Your task to perform on an android device: Check the news Image 0: 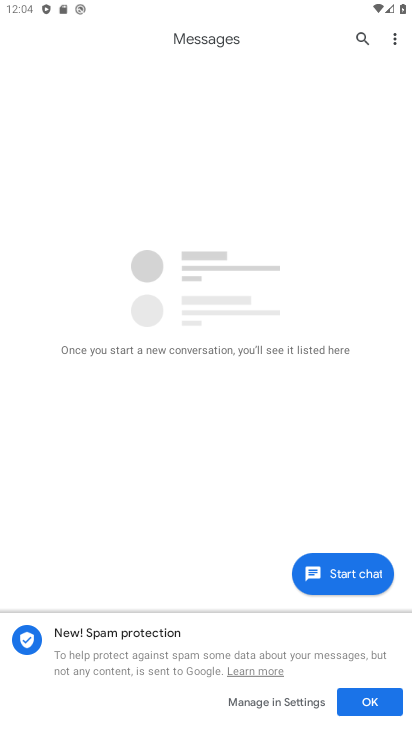
Step 0: press home button
Your task to perform on an android device: Check the news Image 1: 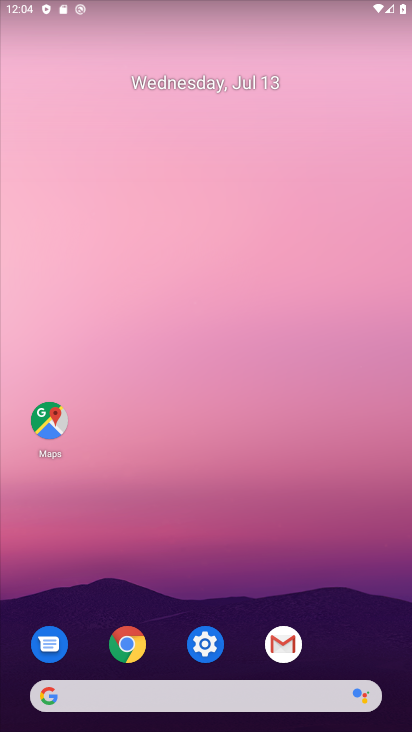
Step 1: click (153, 701)
Your task to perform on an android device: Check the news Image 2: 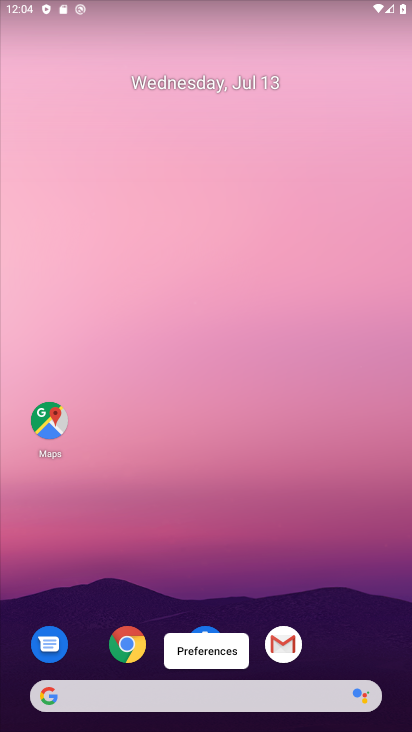
Step 2: click (78, 699)
Your task to perform on an android device: Check the news Image 3: 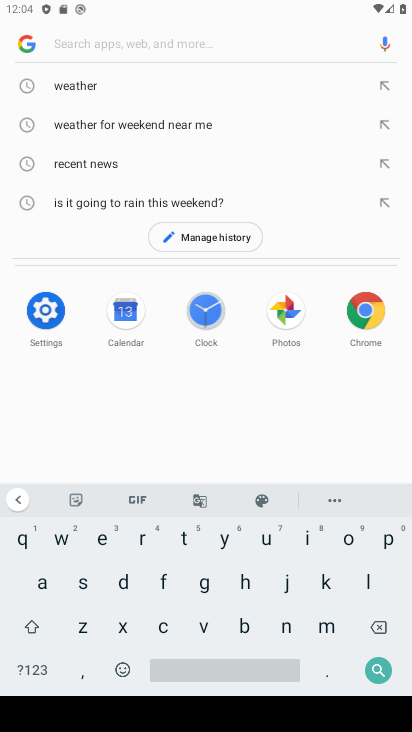
Step 3: click (109, 163)
Your task to perform on an android device: Check the news Image 4: 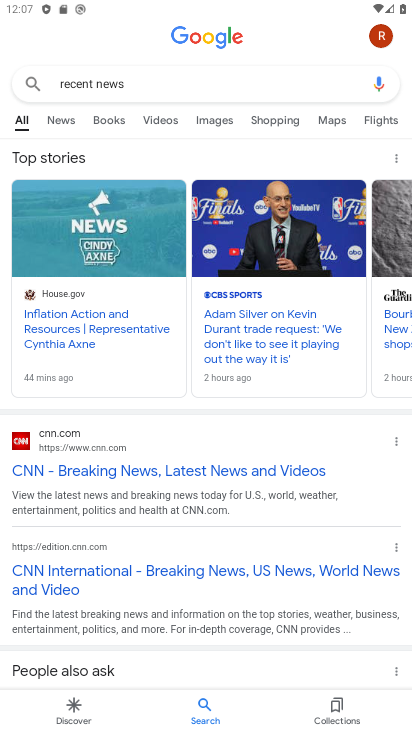
Step 4: task complete